Your task to perform on an android device: Open Reddit.com Image 0: 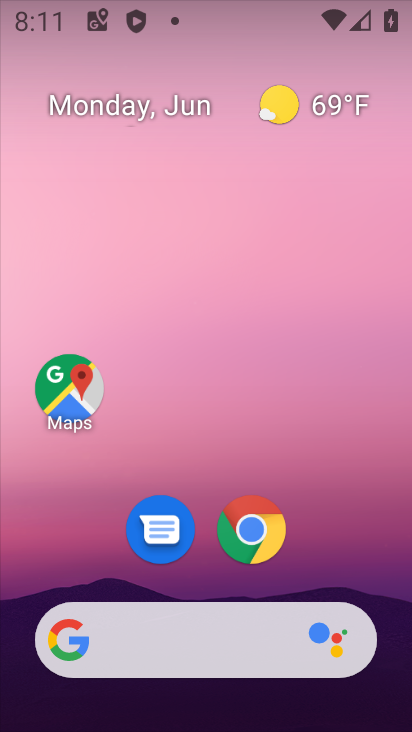
Step 0: click (227, 627)
Your task to perform on an android device: Open Reddit.com Image 1: 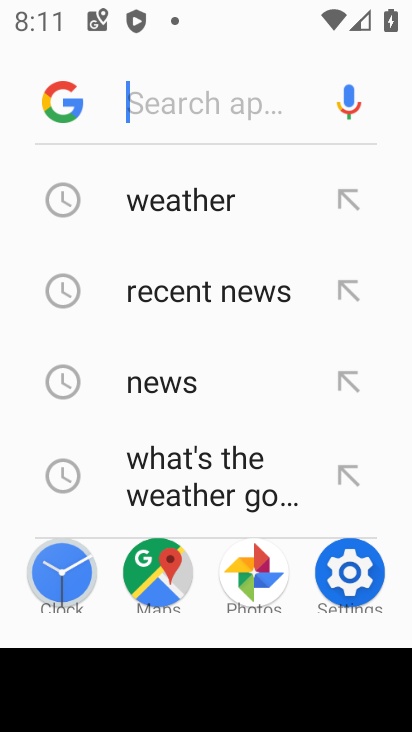
Step 1: type "Reddit.com"
Your task to perform on an android device: Open Reddit.com Image 2: 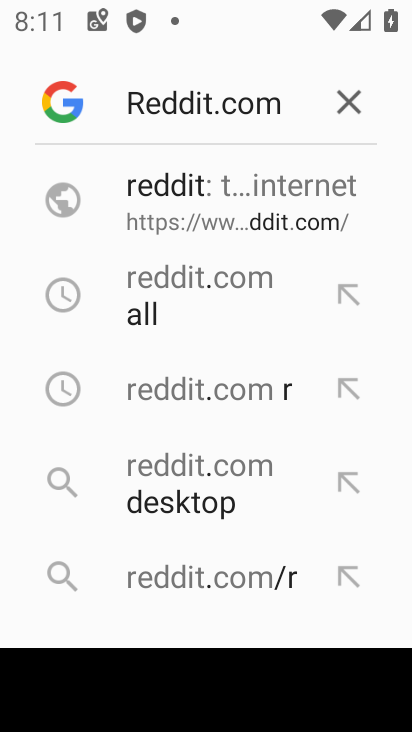
Step 2: click (235, 215)
Your task to perform on an android device: Open Reddit.com Image 3: 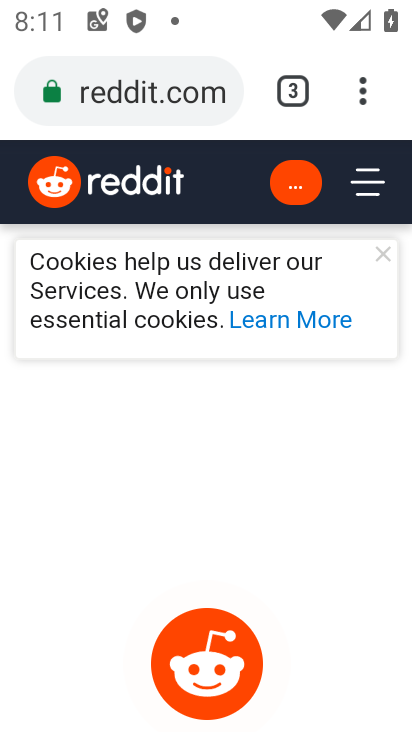
Step 3: task complete